Your task to perform on an android device: check the backup settings in the google photos Image 0: 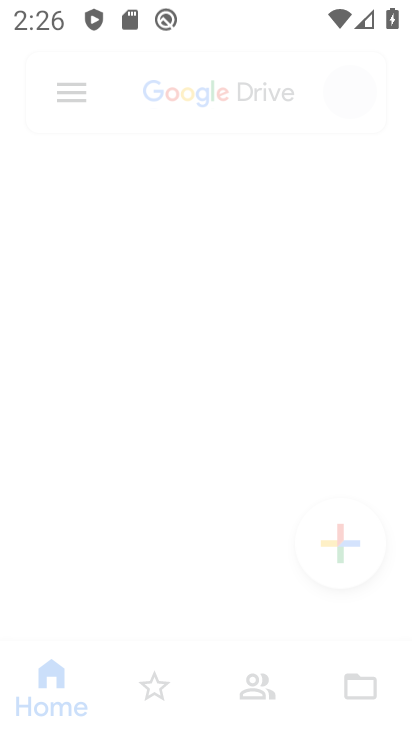
Step 0: drag from (203, 577) to (232, 216)
Your task to perform on an android device: check the backup settings in the google photos Image 1: 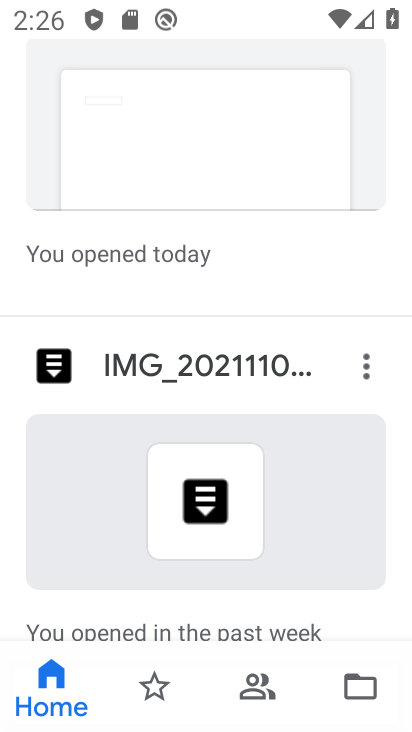
Step 1: press home button
Your task to perform on an android device: check the backup settings in the google photos Image 2: 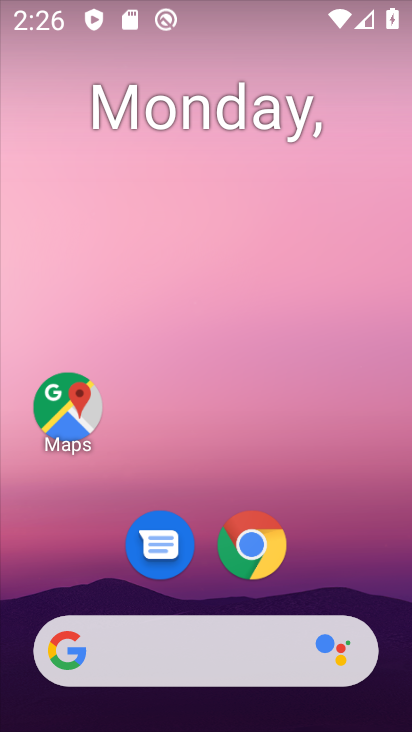
Step 2: drag from (200, 613) to (277, 63)
Your task to perform on an android device: check the backup settings in the google photos Image 3: 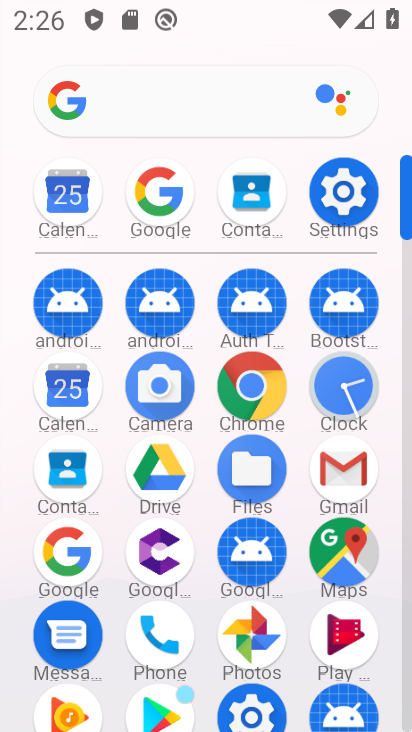
Step 3: click (251, 630)
Your task to perform on an android device: check the backup settings in the google photos Image 4: 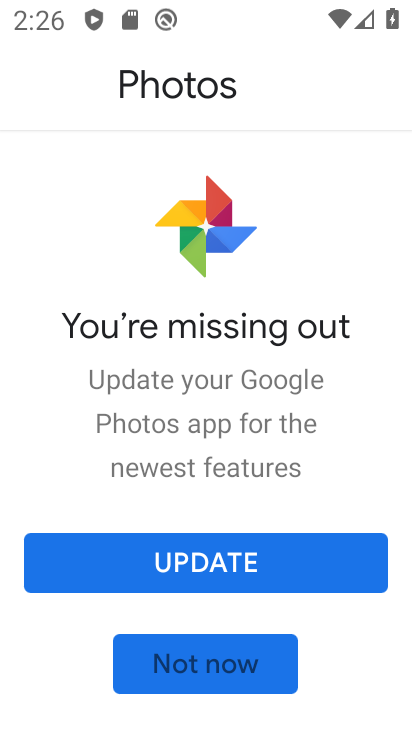
Step 4: click (223, 669)
Your task to perform on an android device: check the backup settings in the google photos Image 5: 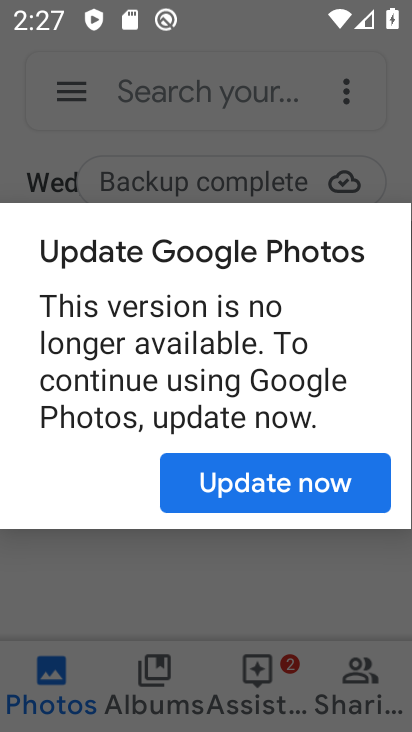
Step 5: click (251, 492)
Your task to perform on an android device: check the backup settings in the google photos Image 6: 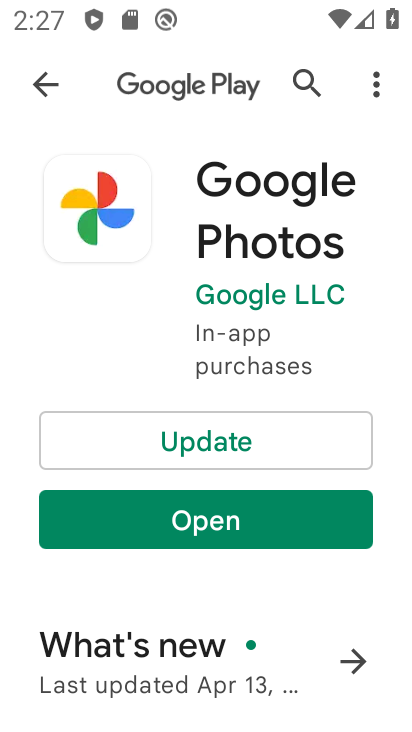
Step 6: click (222, 512)
Your task to perform on an android device: check the backup settings in the google photos Image 7: 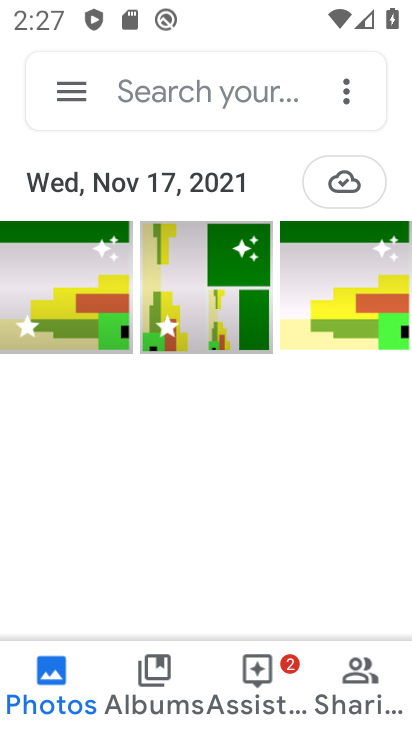
Step 7: task complete